Your task to perform on an android device: open app "WhatsApp Messenger" (install if not already installed) and go to login screen Image 0: 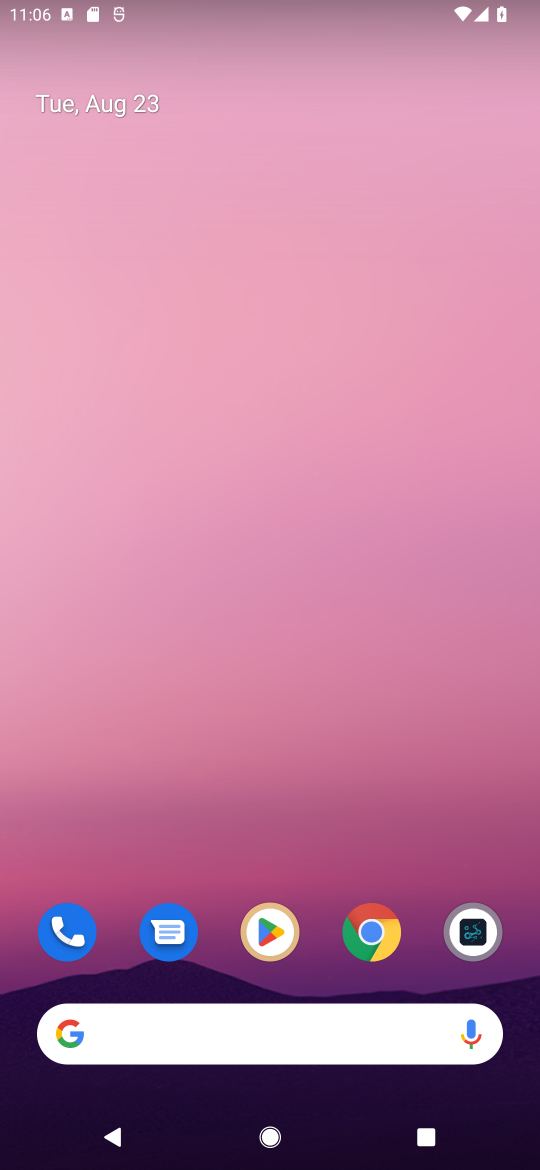
Step 0: click (253, 931)
Your task to perform on an android device: open app "WhatsApp Messenger" (install if not already installed) and go to login screen Image 1: 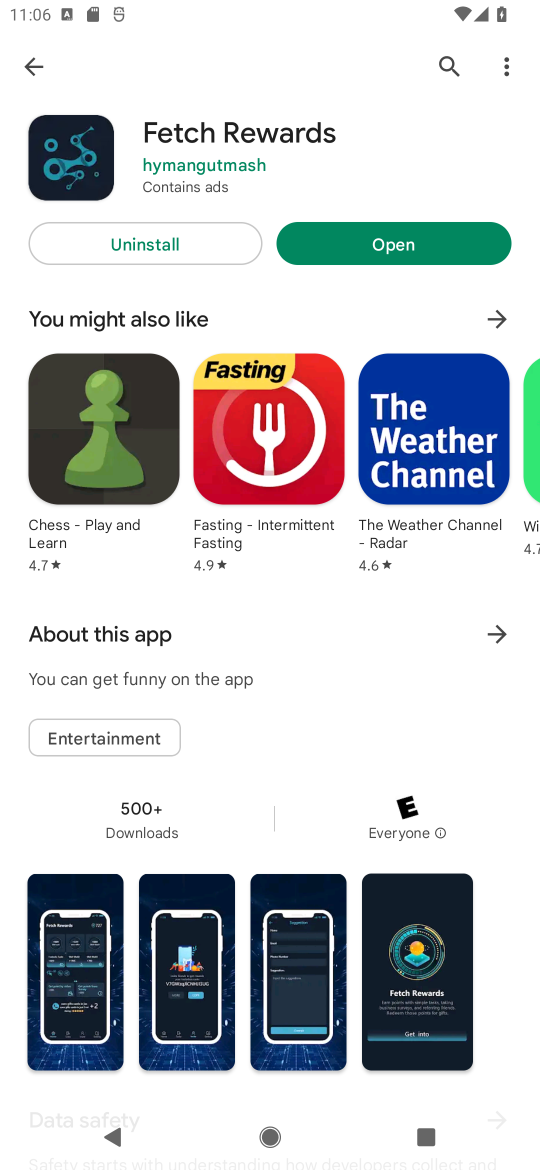
Step 1: click (458, 72)
Your task to perform on an android device: open app "WhatsApp Messenger" (install if not already installed) and go to login screen Image 2: 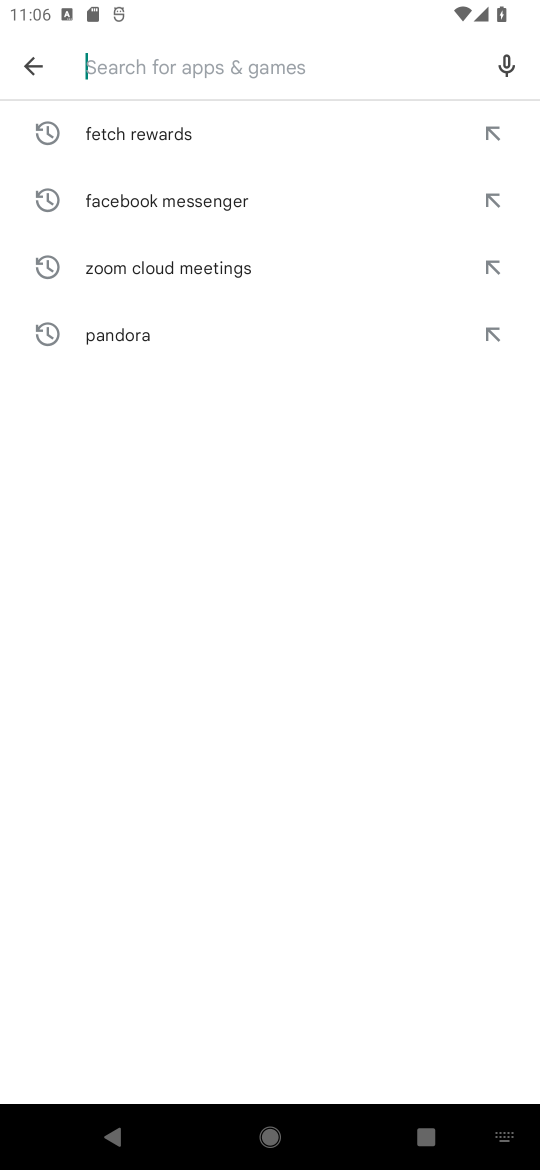
Step 2: click (122, 51)
Your task to perform on an android device: open app "WhatsApp Messenger" (install if not already installed) and go to login screen Image 3: 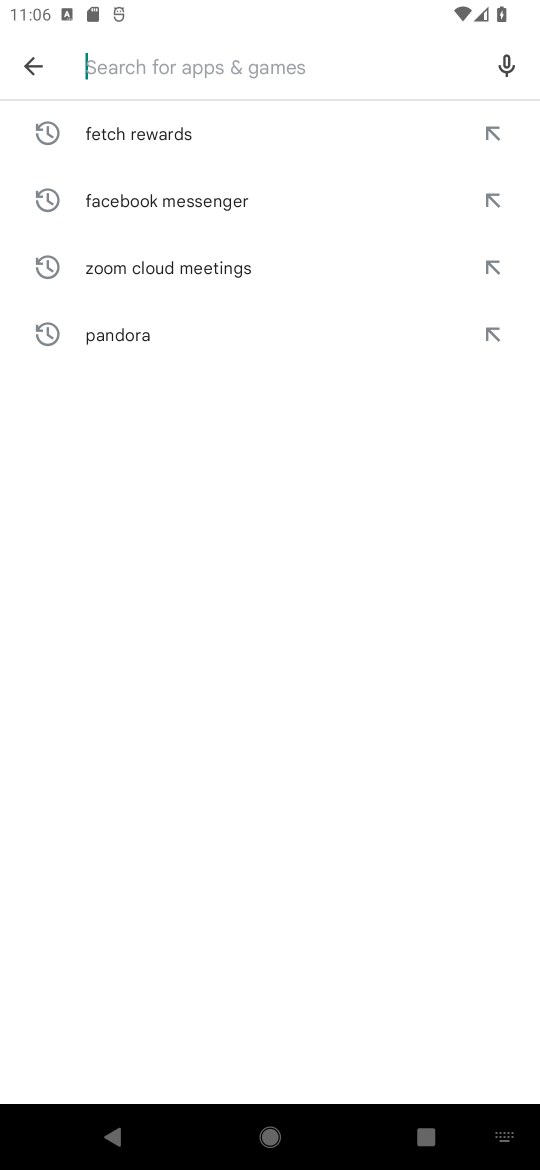
Step 3: type "WhatsApp Messenger"
Your task to perform on an android device: open app "WhatsApp Messenger" (install if not already installed) and go to login screen Image 4: 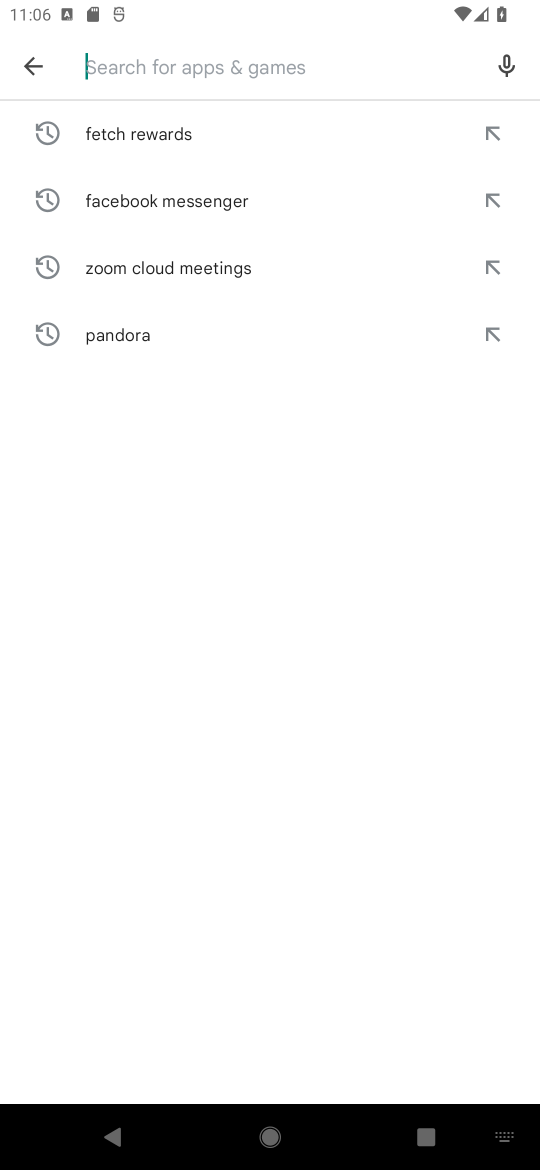
Step 4: click (425, 683)
Your task to perform on an android device: open app "WhatsApp Messenger" (install if not already installed) and go to login screen Image 5: 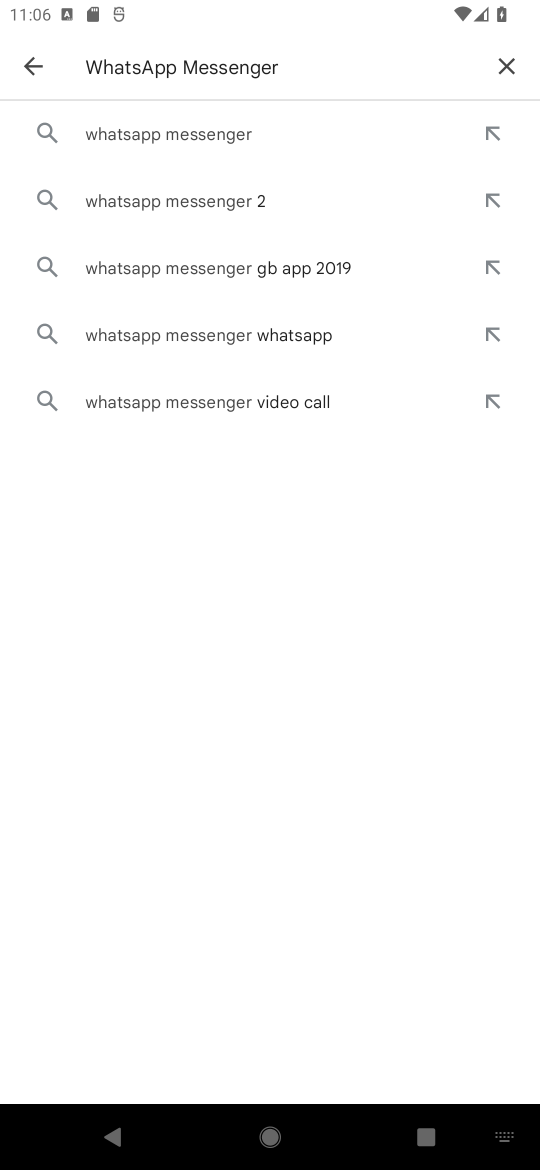
Step 5: click (166, 118)
Your task to perform on an android device: open app "WhatsApp Messenger" (install if not already installed) and go to login screen Image 6: 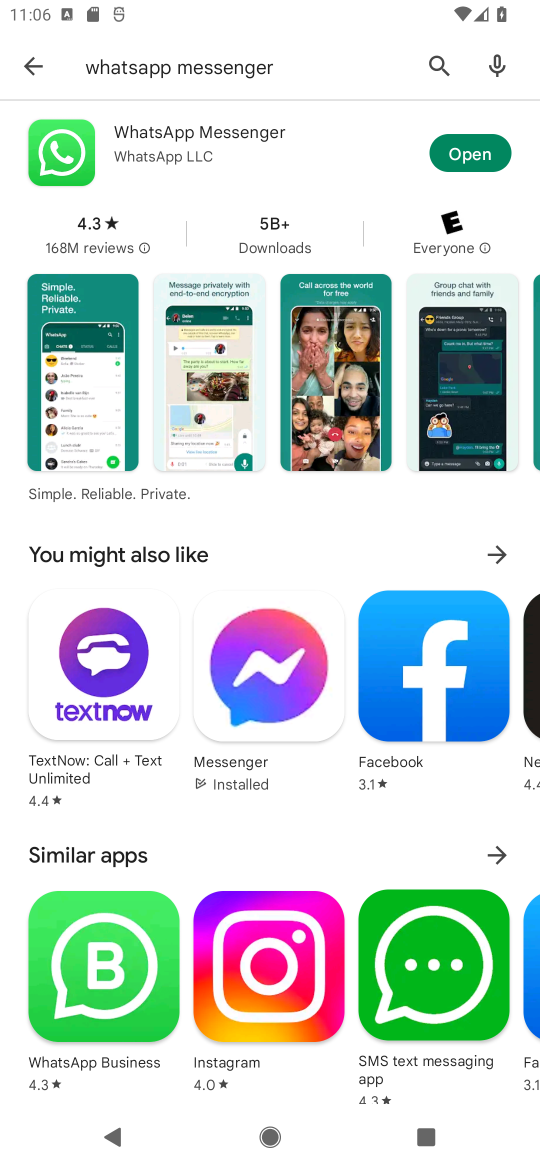
Step 6: click (466, 138)
Your task to perform on an android device: open app "WhatsApp Messenger" (install if not already installed) and go to login screen Image 7: 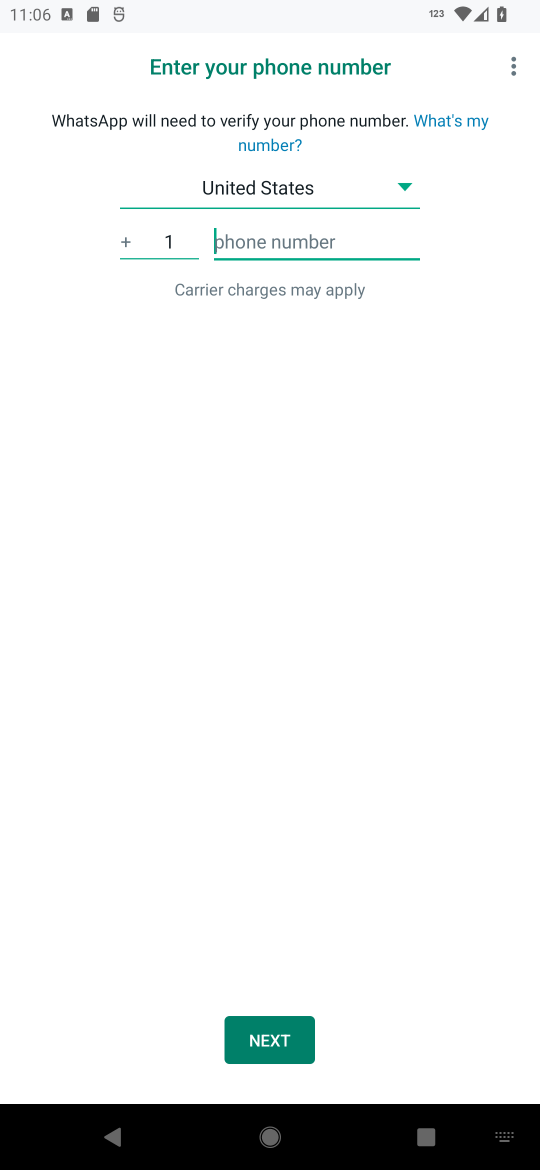
Step 7: task complete